Your task to perform on an android device: turn pop-ups on in chrome Image 0: 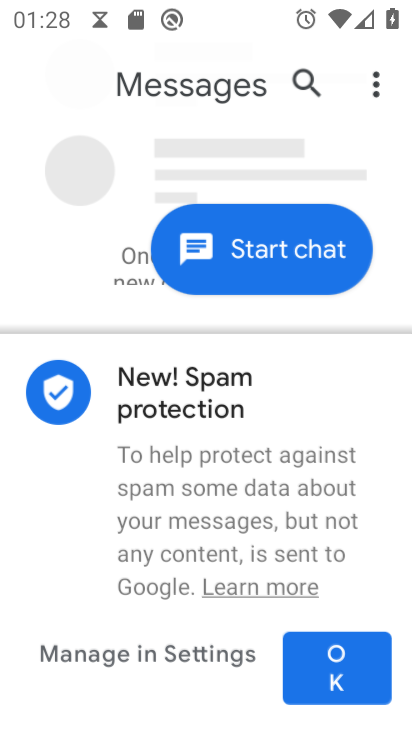
Step 0: drag from (350, 535) to (366, 259)
Your task to perform on an android device: turn pop-ups on in chrome Image 1: 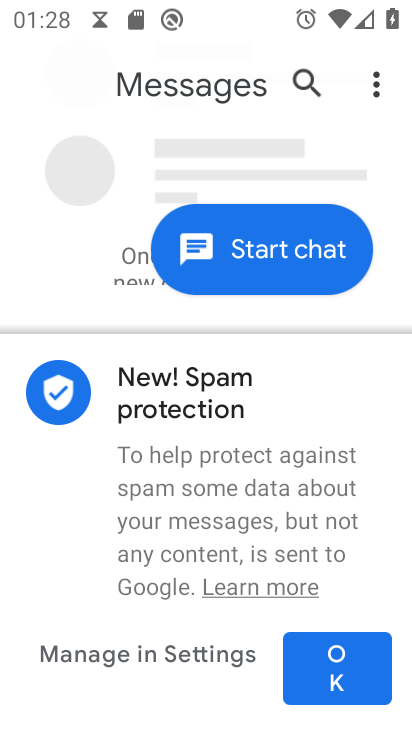
Step 1: press home button
Your task to perform on an android device: turn pop-ups on in chrome Image 2: 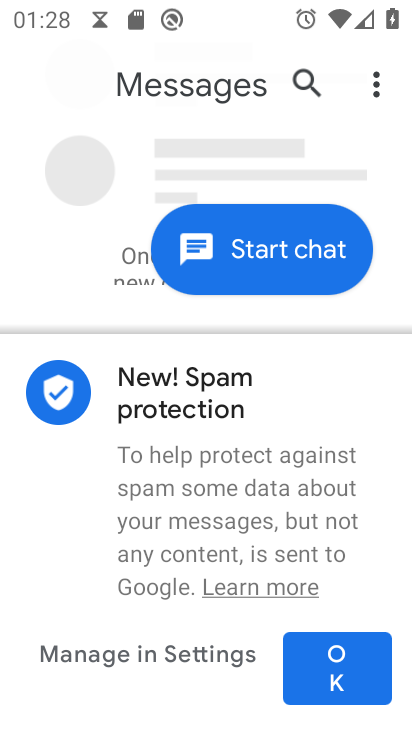
Step 2: drag from (366, 259) to (403, 641)
Your task to perform on an android device: turn pop-ups on in chrome Image 3: 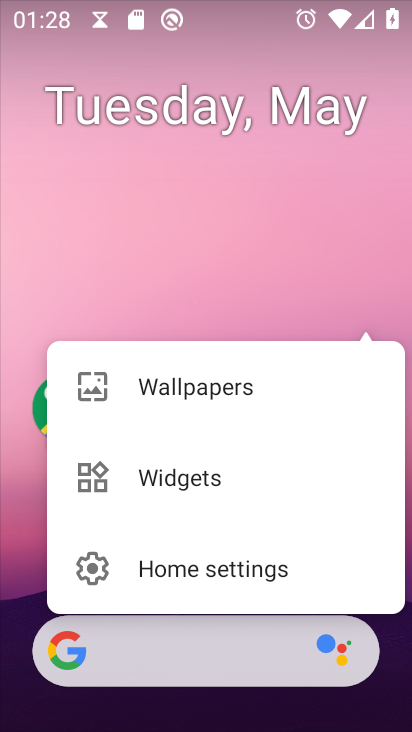
Step 3: click (250, 252)
Your task to perform on an android device: turn pop-ups on in chrome Image 4: 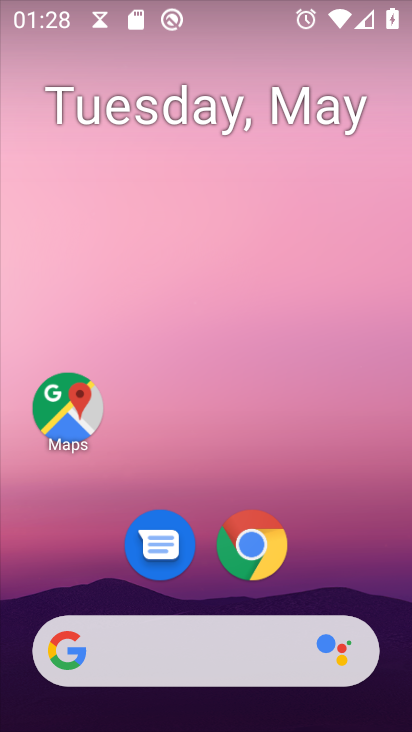
Step 4: click (261, 540)
Your task to perform on an android device: turn pop-ups on in chrome Image 5: 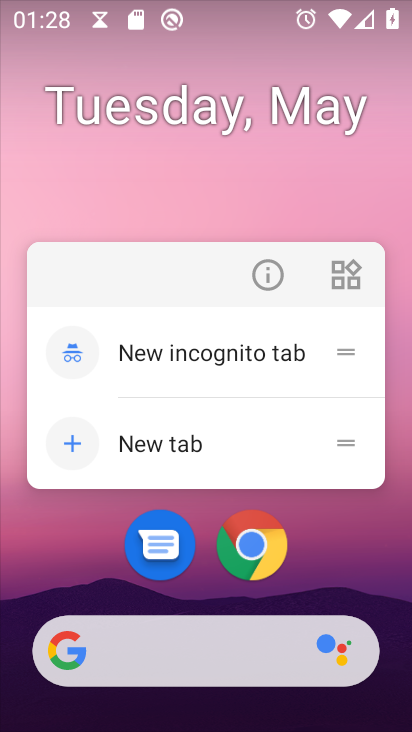
Step 5: click (261, 540)
Your task to perform on an android device: turn pop-ups on in chrome Image 6: 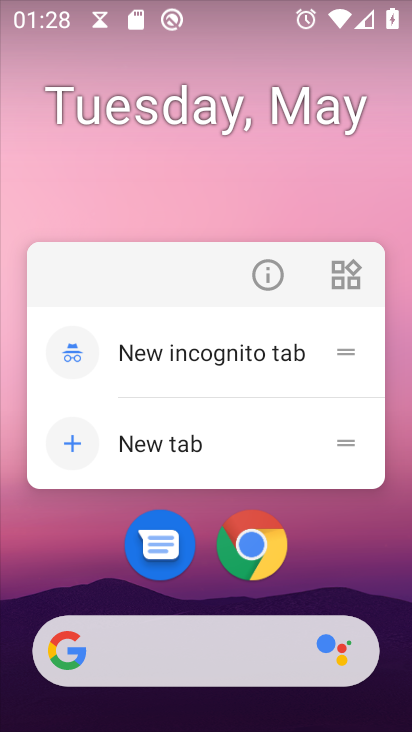
Step 6: click (261, 540)
Your task to perform on an android device: turn pop-ups on in chrome Image 7: 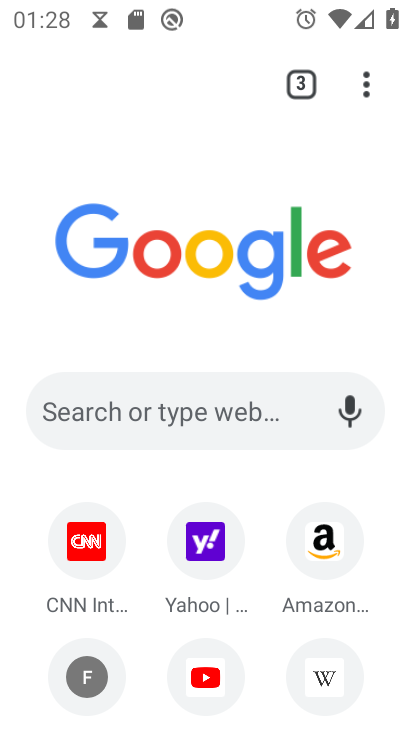
Step 7: click (360, 89)
Your task to perform on an android device: turn pop-ups on in chrome Image 8: 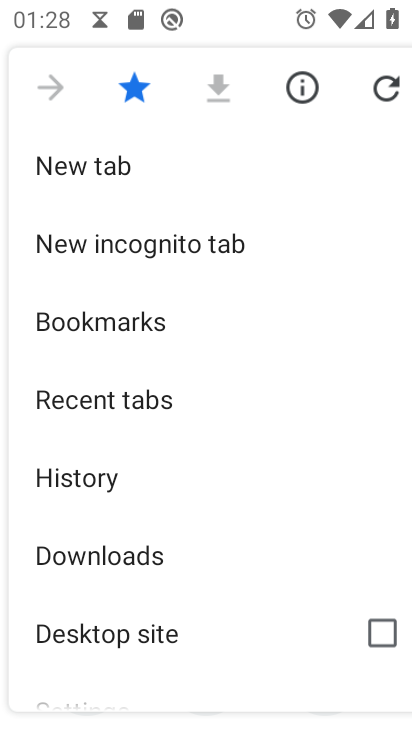
Step 8: drag from (126, 634) to (118, 359)
Your task to perform on an android device: turn pop-ups on in chrome Image 9: 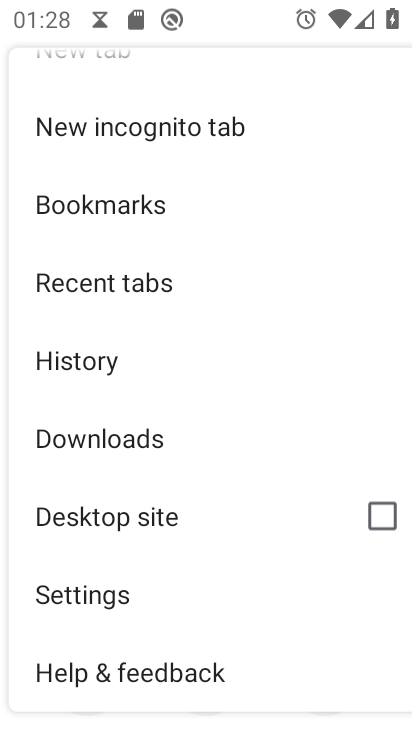
Step 9: click (166, 605)
Your task to perform on an android device: turn pop-ups on in chrome Image 10: 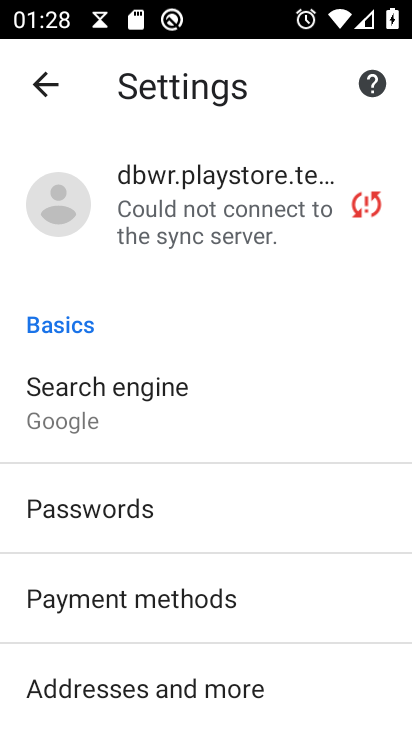
Step 10: drag from (165, 647) to (157, 500)
Your task to perform on an android device: turn pop-ups on in chrome Image 11: 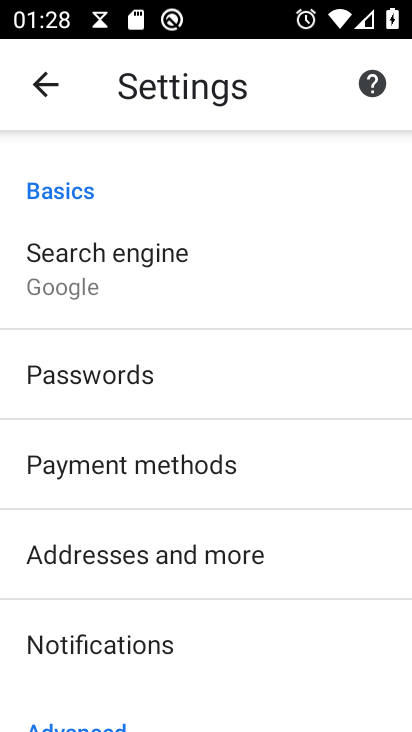
Step 11: drag from (171, 622) to (147, 509)
Your task to perform on an android device: turn pop-ups on in chrome Image 12: 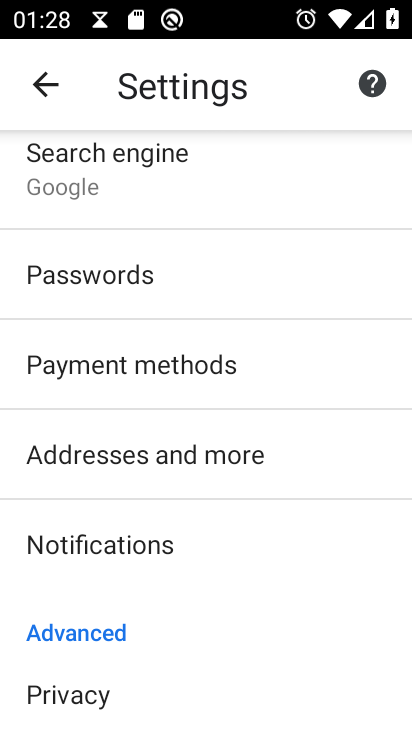
Step 12: drag from (168, 638) to (162, 515)
Your task to perform on an android device: turn pop-ups on in chrome Image 13: 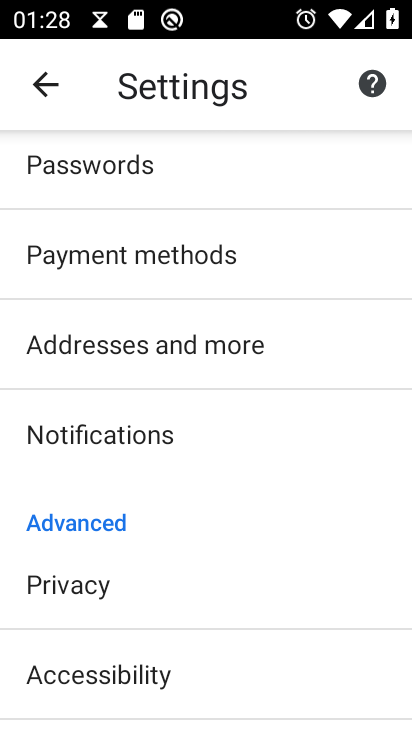
Step 13: drag from (160, 642) to (173, 471)
Your task to perform on an android device: turn pop-ups on in chrome Image 14: 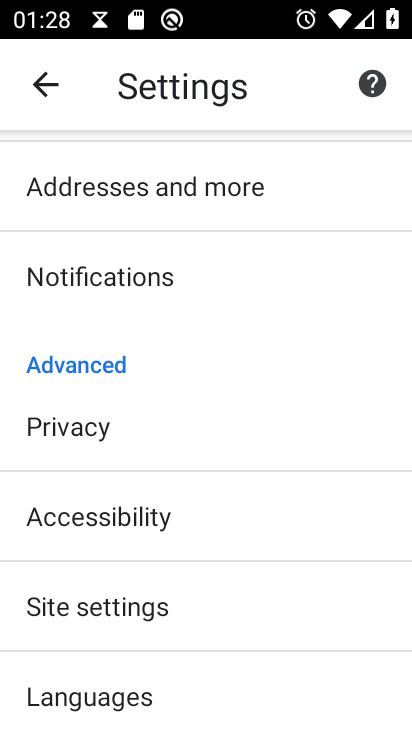
Step 14: drag from (157, 647) to (152, 543)
Your task to perform on an android device: turn pop-ups on in chrome Image 15: 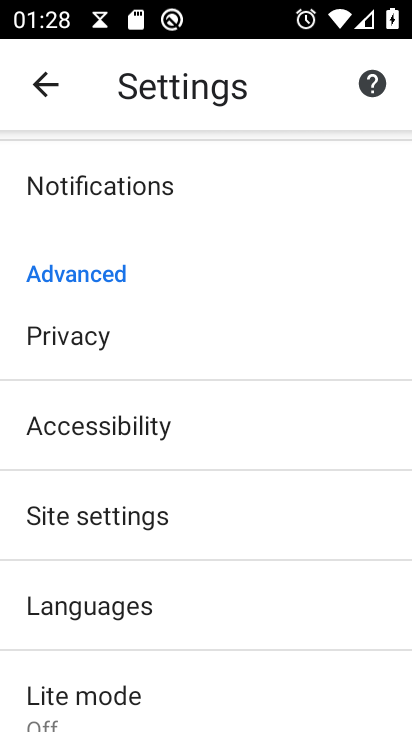
Step 15: click (152, 532)
Your task to perform on an android device: turn pop-ups on in chrome Image 16: 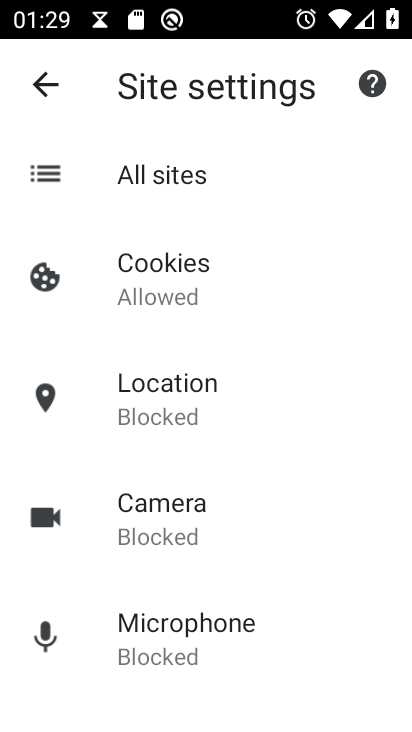
Step 16: drag from (233, 657) to (231, 531)
Your task to perform on an android device: turn pop-ups on in chrome Image 17: 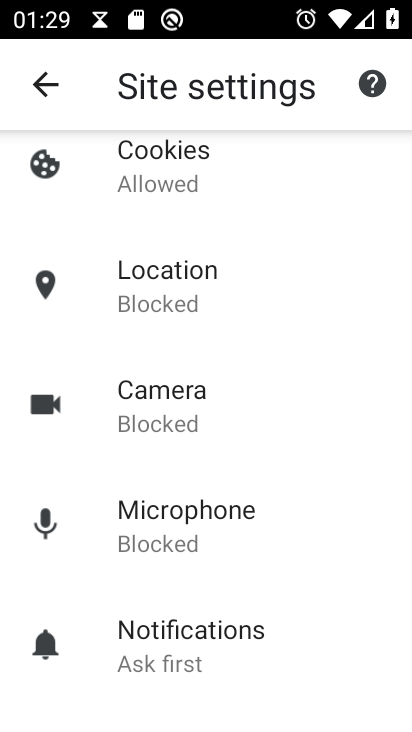
Step 17: drag from (258, 642) to (250, 505)
Your task to perform on an android device: turn pop-ups on in chrome Image 18: 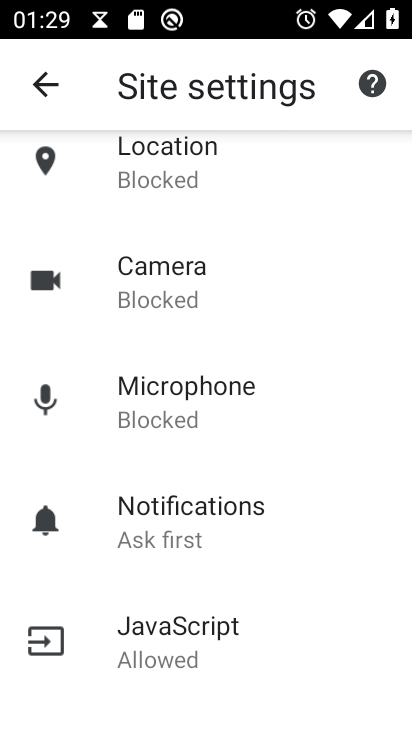
Step 18: drag from (274, 619) to (251, 509)
Your task to perform on an android device: turn pop-ups on in chrome Image 19: 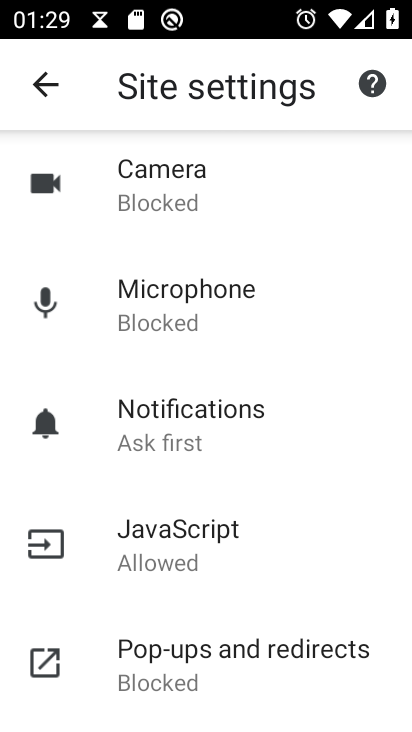
Step 19: click (162, 657)
Your task to perform on an android device: turn pop-ups on in chrome Image 20: 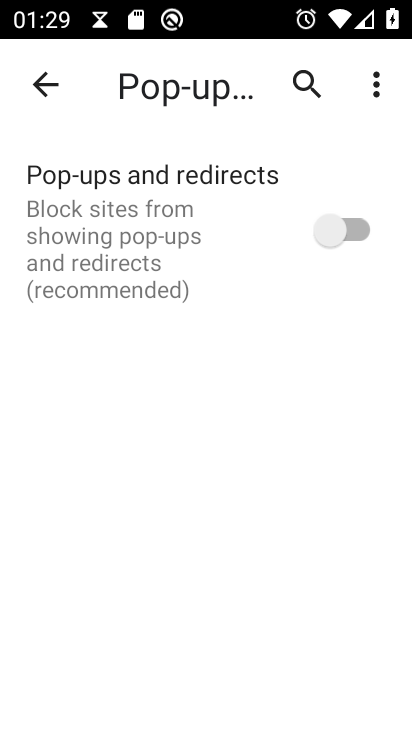
Step 20: click (355, 228)
Your task to perform on an android device: turn pop-ups on in chrome Image 21: 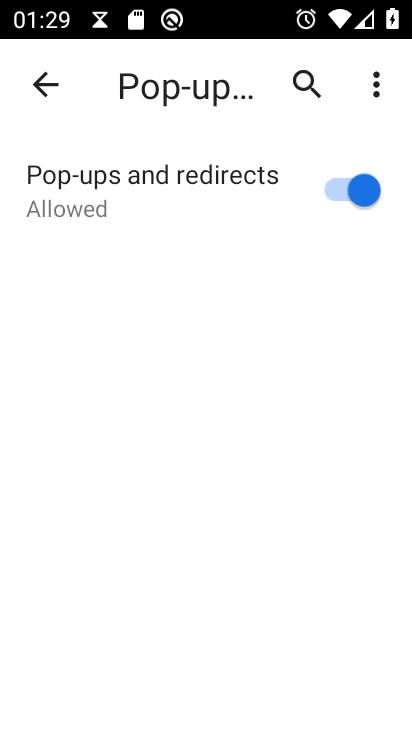
Step 21: task complete